Your task to perform on an android device: Is it going to rain tomorrow? Image 0: 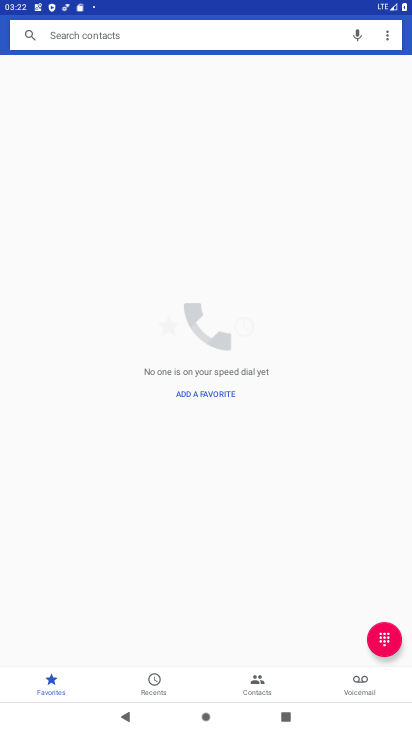
Step 0: press home button
Your task to perform on an android device: Is it going to rain tomorrow? Image 1: 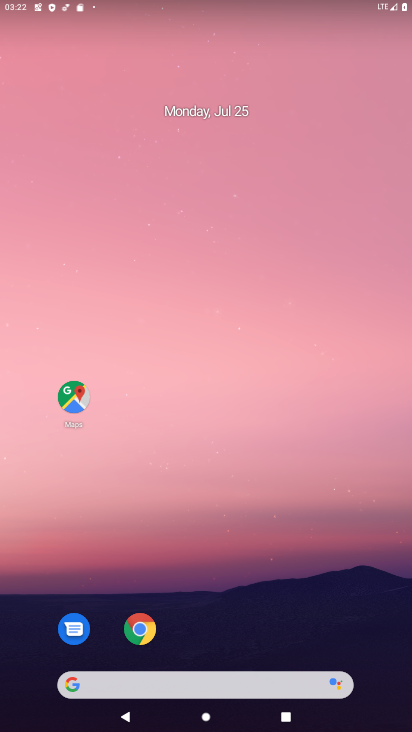
Step 1: click (160, 685)
Your task to perform on an android device: Is it going to rain tomorrow? Image 2: 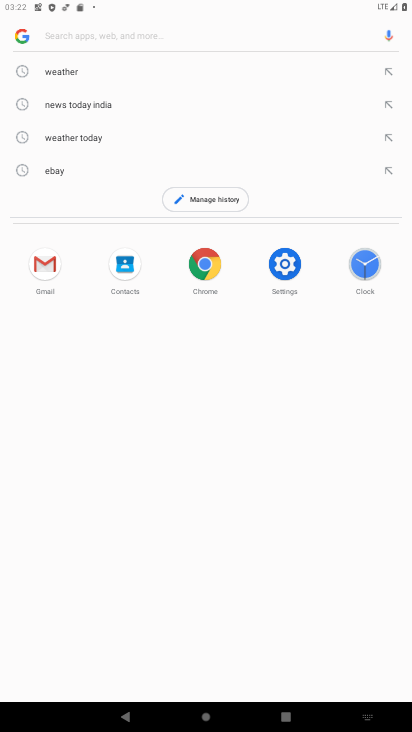
Step 2: click (49, 78)
Your task to perform on an android device: Is it going to rain tomorrow? Image 3: 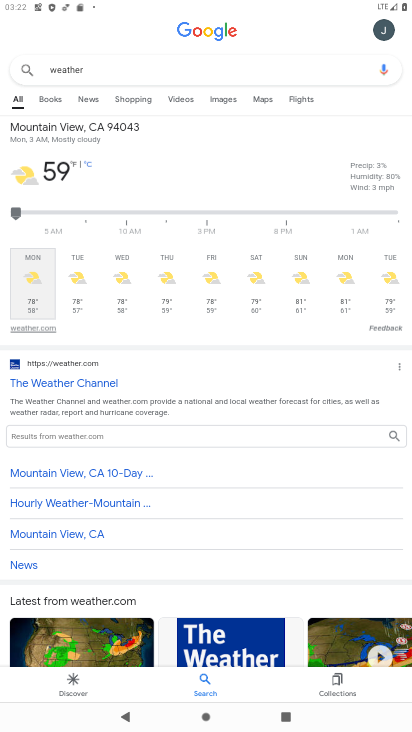
Step 3: click (68, 258)
Your task to perform on an android device: Is it going to rain tomorrow? Image 4: 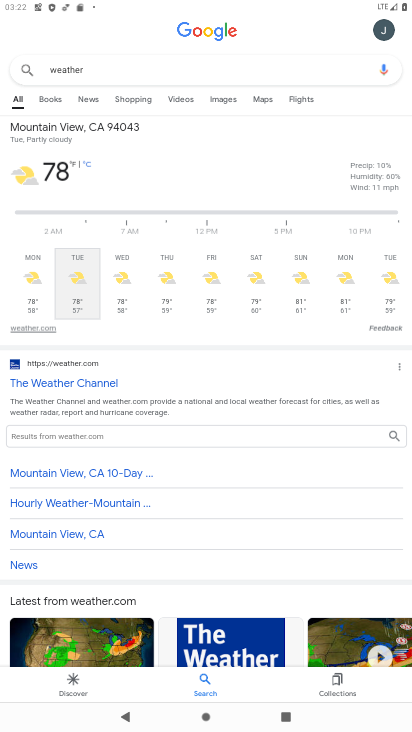
Step 4: task complete